Your task to perform on an android device: Go to Yahoo.com Image 0: 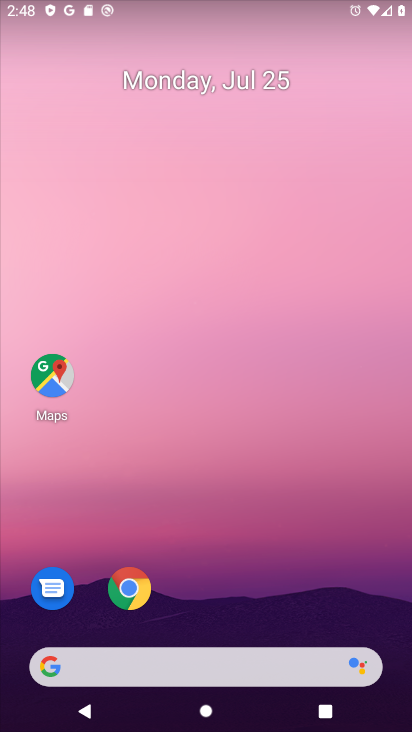
Step 0: press home button
Your task to perform on an android device: Go to Yahoo.com Image 1: 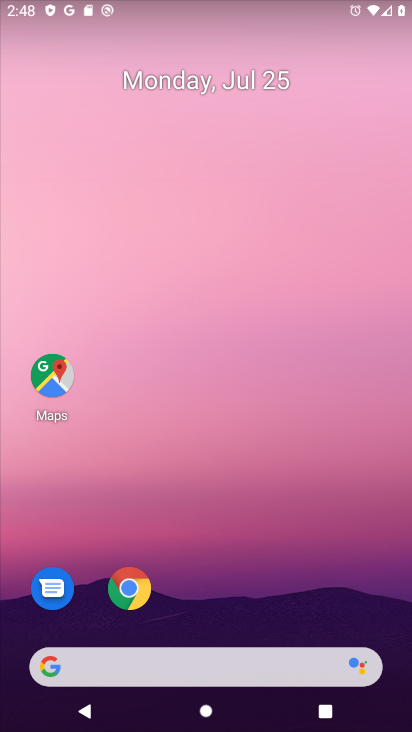
Step 1: click (124, 583)
Your task to perform on an android device: Go to Yahoo.com Image 2: 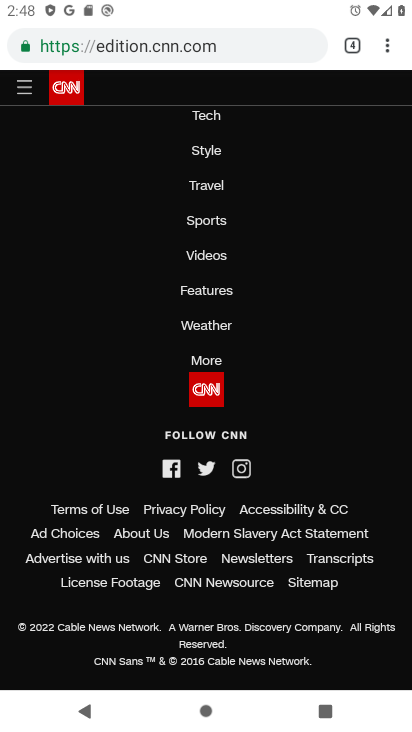
Step 2: click (355, 45)
Your task to perform on an android device: Go to Yahoo.com Image 3: 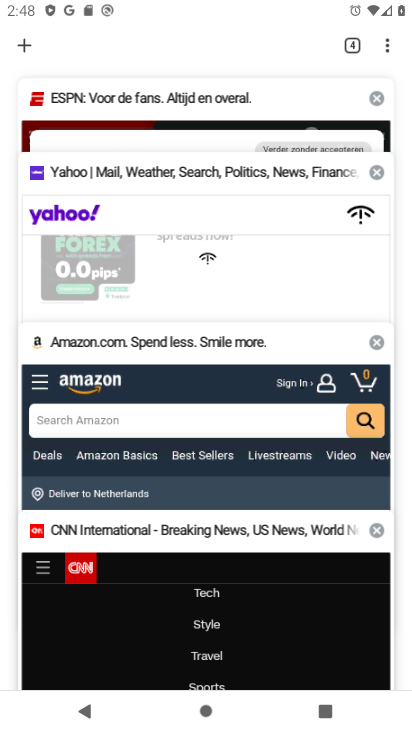
Step 3: click (146, 232)
Your task to perform on an android device: Go to Yahoo.com Image 4: 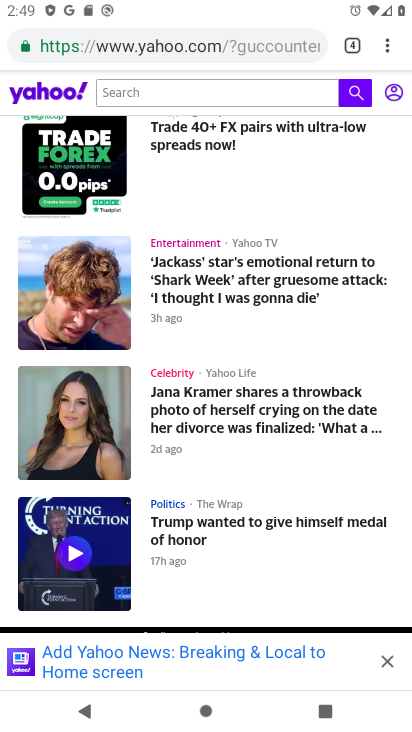
Step 4: click (385, 660)
Your task to perform on an android device: Go to Yahoo.com Image 5: 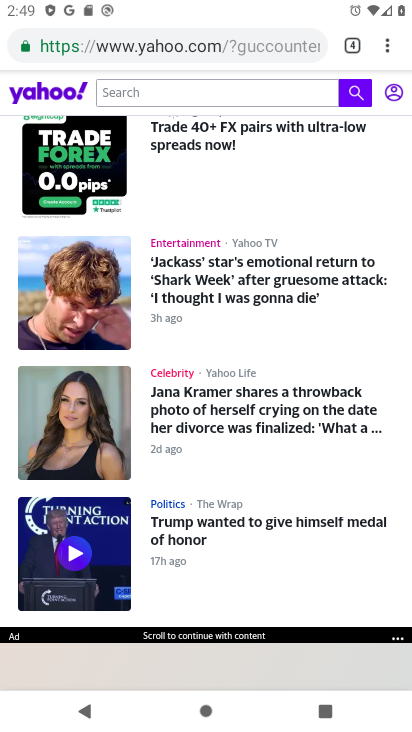
Step 5: task complete